Your task to perform on an android device: Check the news Image 0: 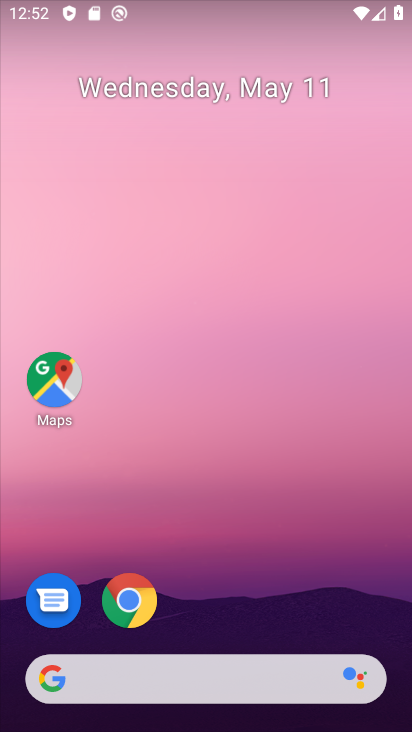
Step 0: drag from (231, 547) to (269, 263)
Your task to perform on an android device: Check the news Image 1: 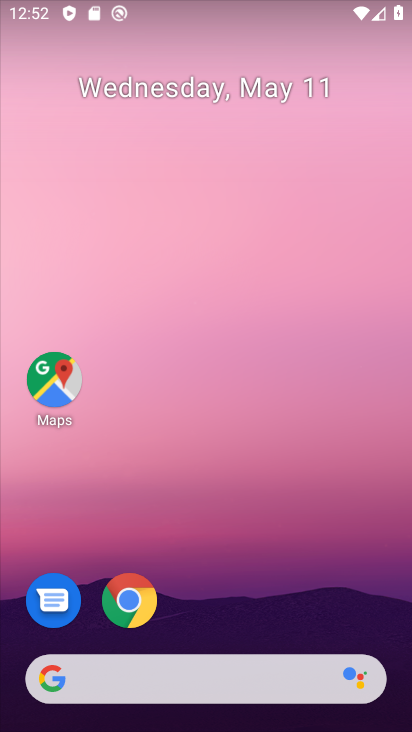
Step 1: drag from (222, 519) to (274, 288)
Your task to perform on an android device: Check the news Image 2: 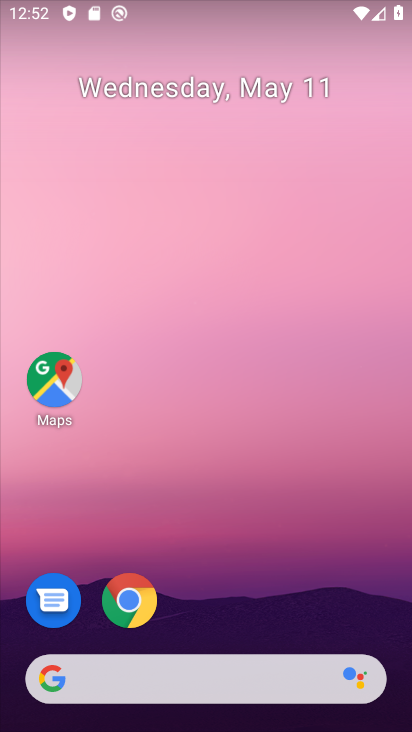
Step 2: drag from (196, 595) to (249, 245)
Your task to perform on an android device: Check the news Image 3: 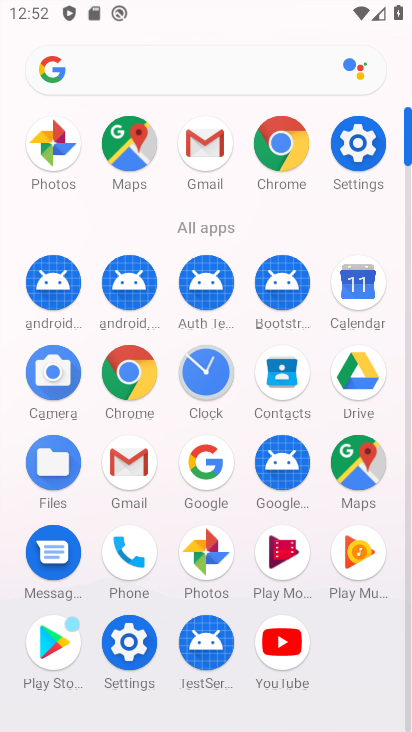
Step 3: click (269, 143)
Your task to perform on an android device: Check the news Image 4: 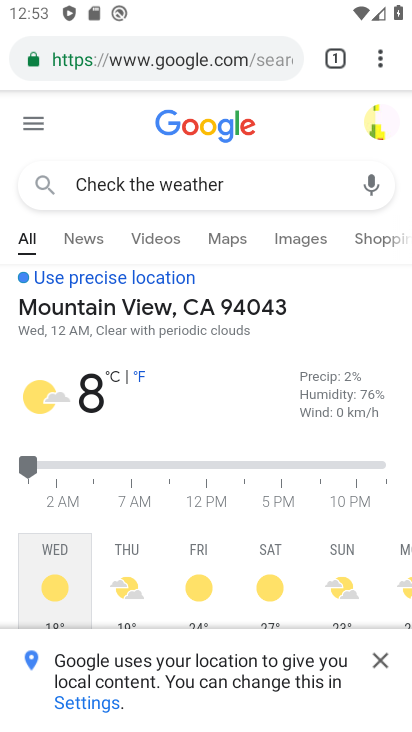
Step 4: click (273, 182)
Your task to perform on an android device: Check the news Image 5: 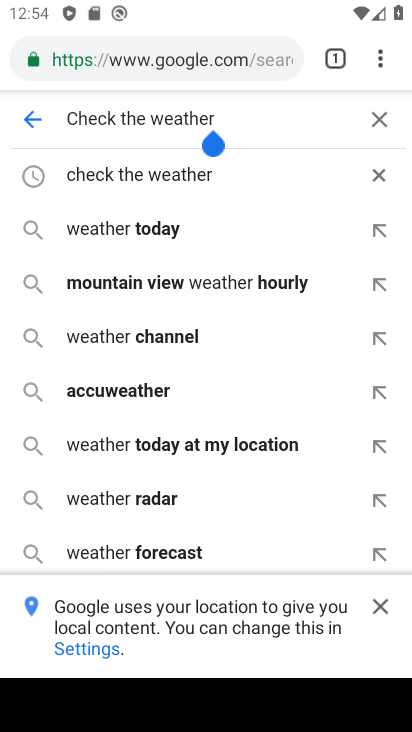
Step 5: click (368, 117)
Your task to perform on an android device: Check the news Image 6: 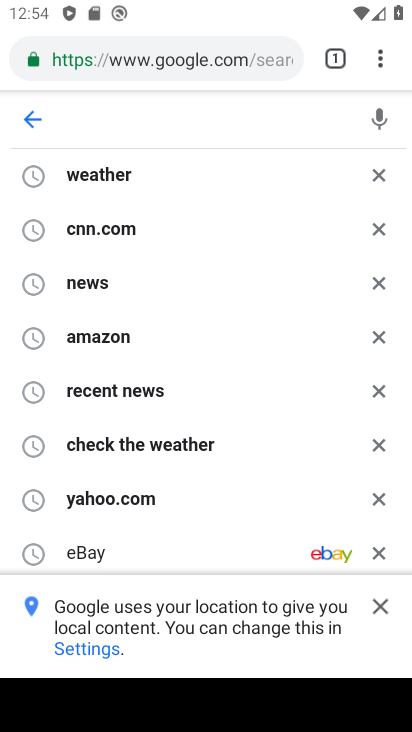
Step 6: click (165, 113)
Your task to perform on an android device: Check the news Image 7: 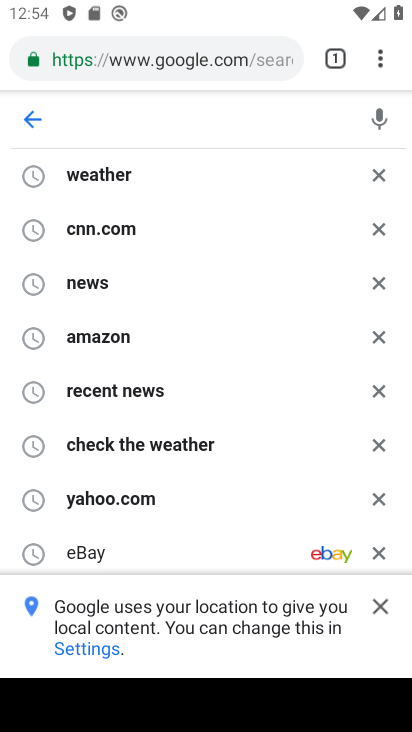
Step 7: type "Check the news"
Your task to perform on an android device: Check the news Image 8: 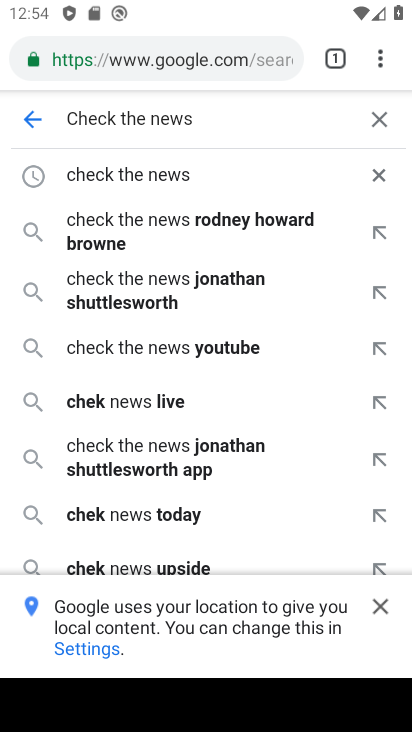
Step 8: click (196, 179)
Your task to perform on an android device: Check the news Image 9: 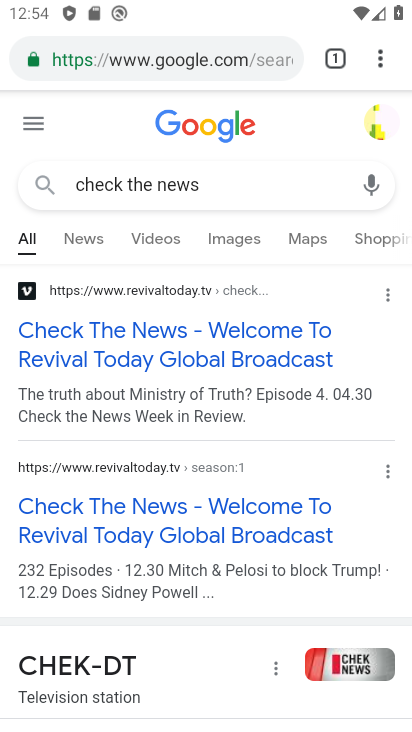
Step 9: task complete